Your task to perform on an android device: Go to Yahoo.com Image 0: 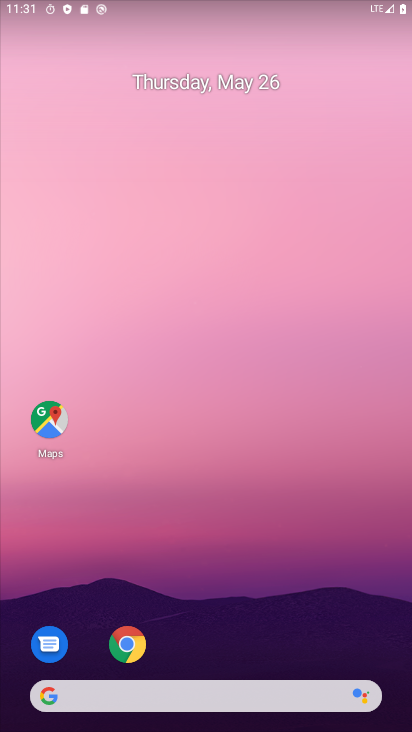
Step 0: click (129, 646)
Your task to perform on an android device: Go to Yahoo.com Image 1: 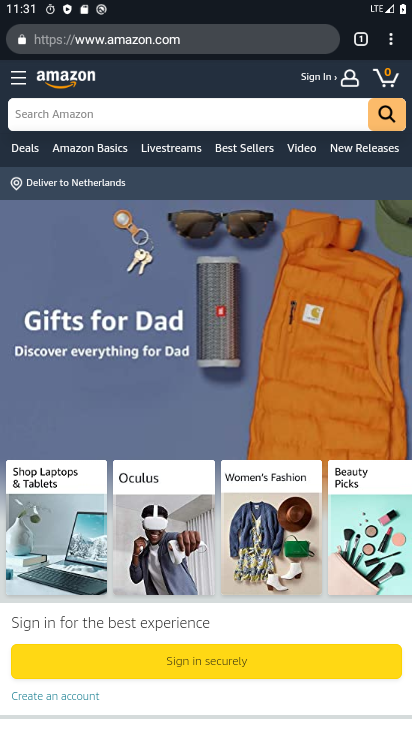
Step 1: click (359, 46)
Your task to perform on an android device: Go to Yahoo.com Image 2: 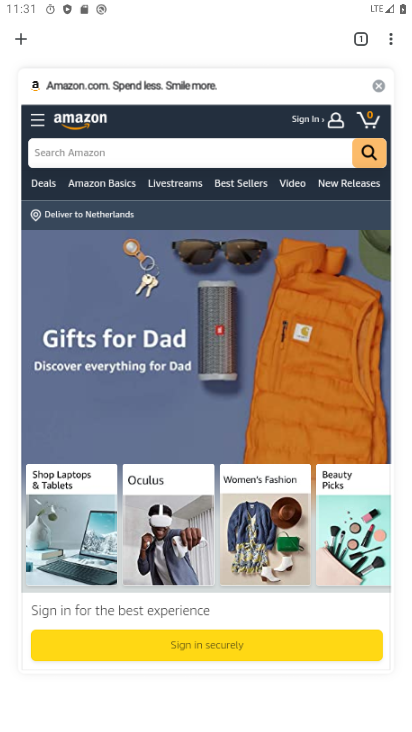
Step 2: click (379, 79)
Your task to perform on an android device: Go to Yahoo.com Image 3: 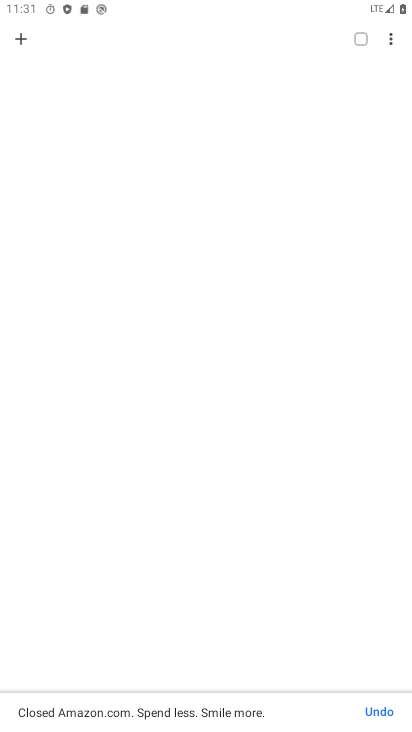
Step 3: click (17, 37)
Your task to perform on an android device: Go to Yahoo.com Image 4: 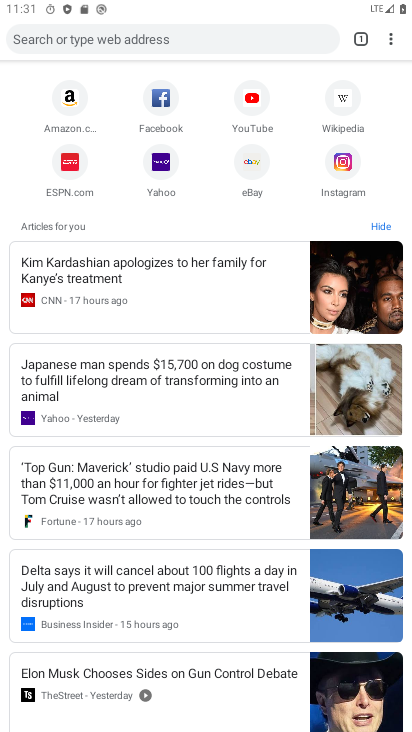
Step 4: click (169, 158)
Your task to perform on an android device: Go to Yahoo.com Image 5: 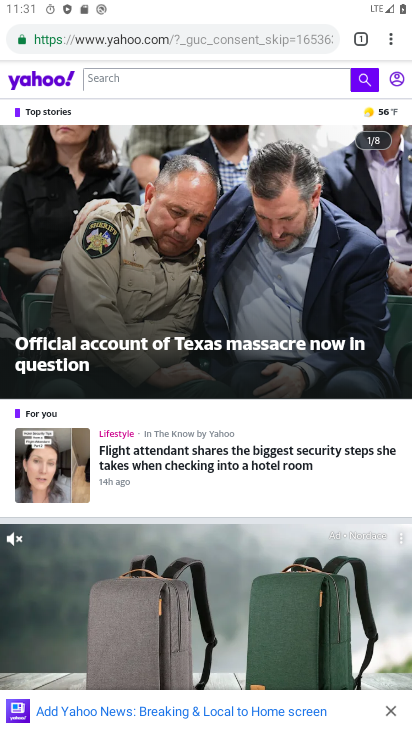
Step 5: task complete